Your task to perform on an android device: open a bookmark in the chrome app Image 0: 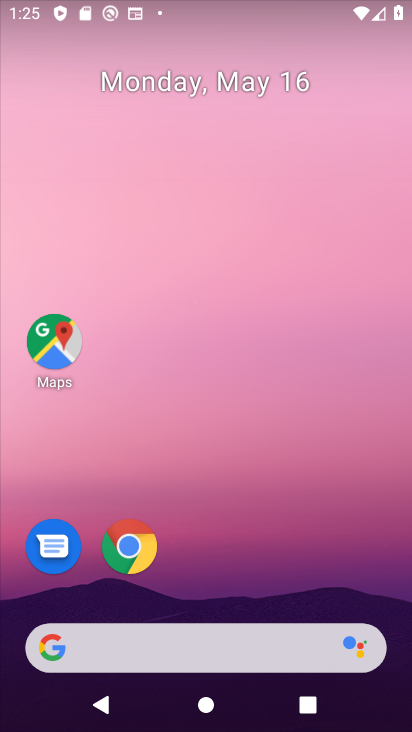
Step 0: click (123, 543)
Your task to perform on an android device: open a bookmark in the chrome app Image 1: 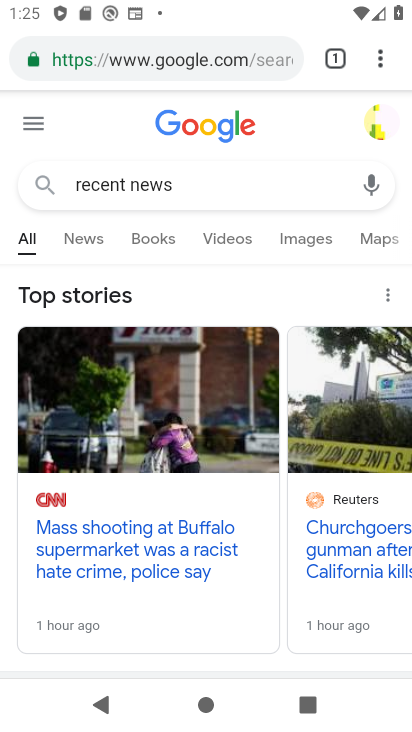
Step 1: click (382, 54)
Your task to perform on an android device: open a bookmark in the chrome app Image 2: 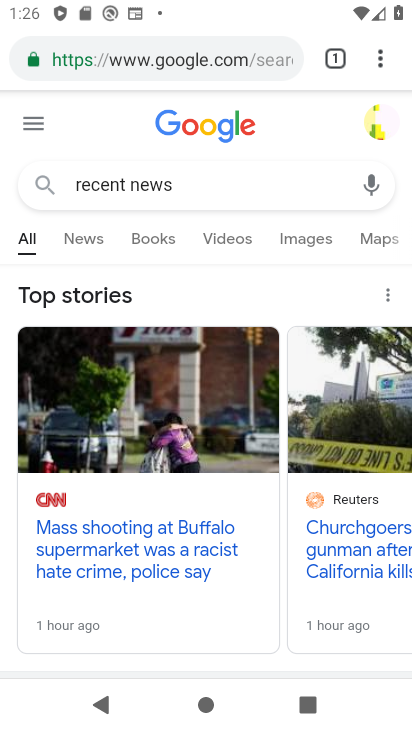
Step 2: click (382, 54)
Your task to perform on an android device: open a bookmark in the chrome app Image 3: 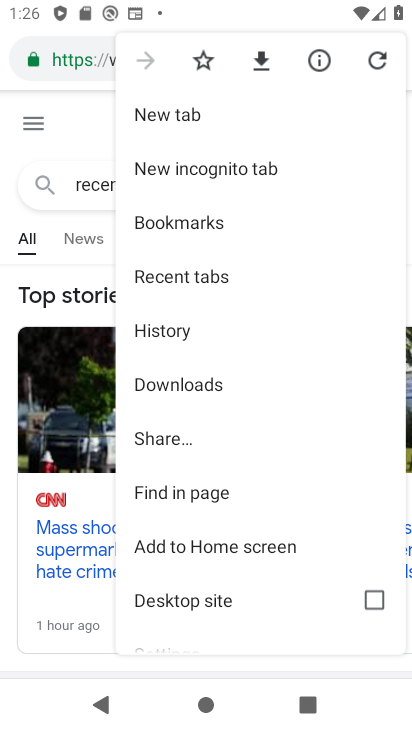
Step 3: click (172, 231)
Your task to perform on an android device: open a bookmark in the chrome app Image 4: 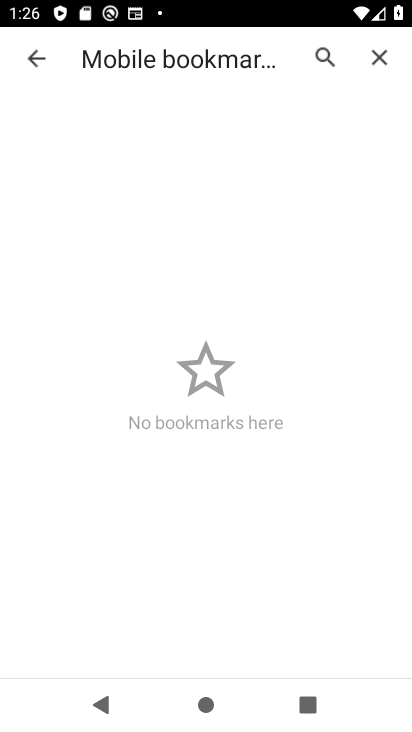
Step 4: task complete